Your task to perform on an android device: Check the weather Image 0: 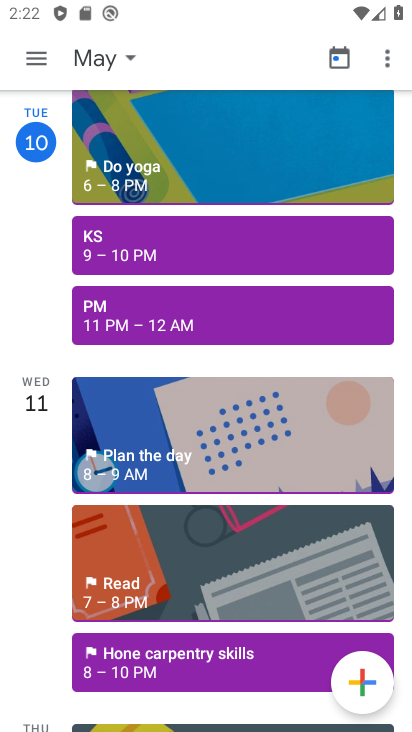
Step 0: press home button
Your task to perform on an android device: Check the weather Image 1: 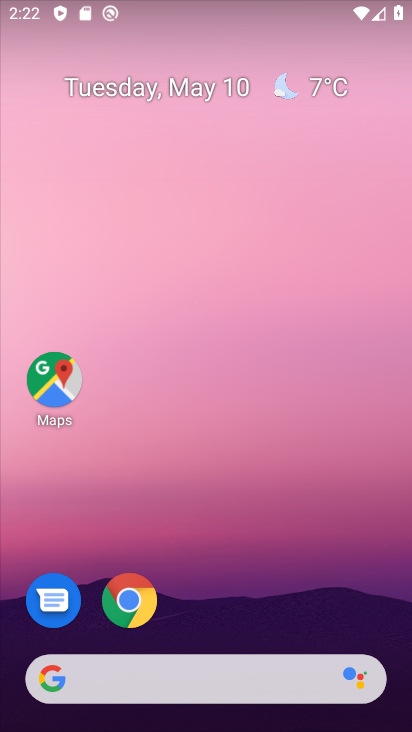
Step 1: click (332, 97)
Your task to perform on an android device: Check the weather Image 2: 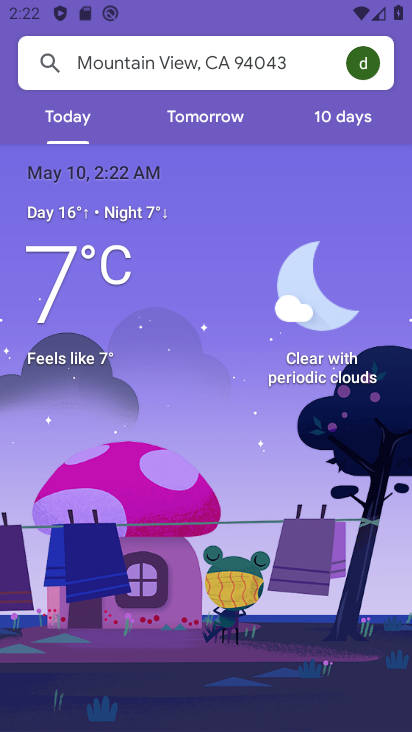
Step 2: task complete